Your task to perform on an android device: Open Youtube and go to "Your channel" Image 0: 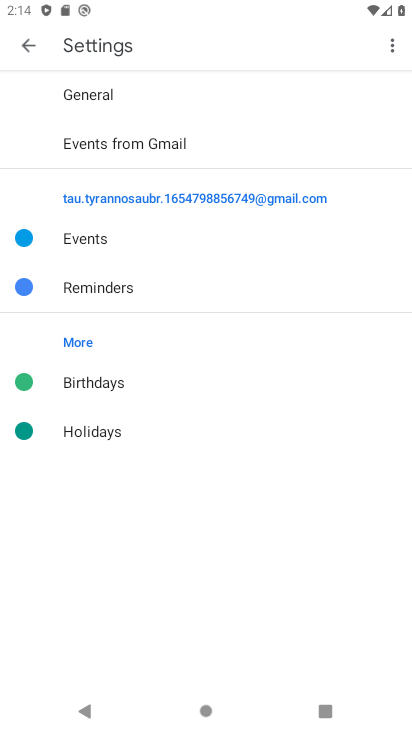
Step 0: click (25, 40)
Your task to perform on an android device: Open Youtube and go to "Your channel" Image 1: 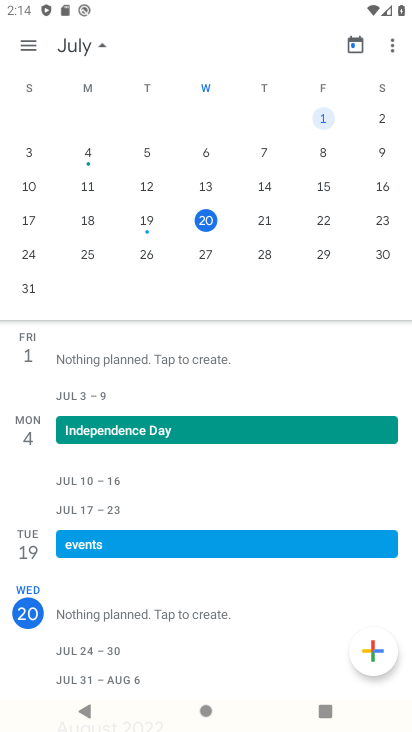
Step 1: press back button
Your task to perform on an android device: Open Youtube and go to "Your channel" Image 2: 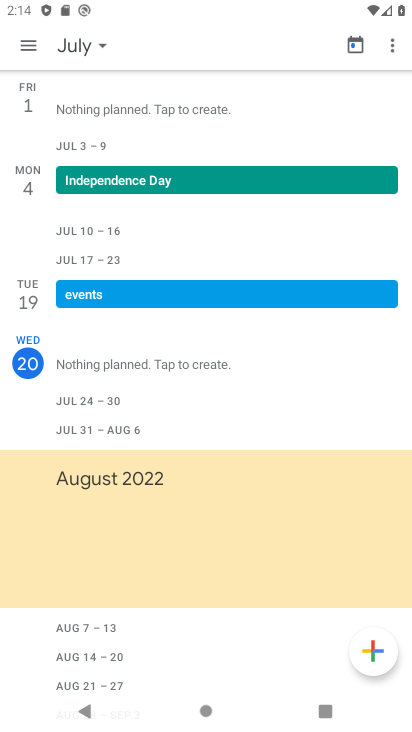
Step 2: drag from (267, 424) to (223, 125)
Your task to perform on an android device: Open Youtube and go to "Your channel" Image 3: 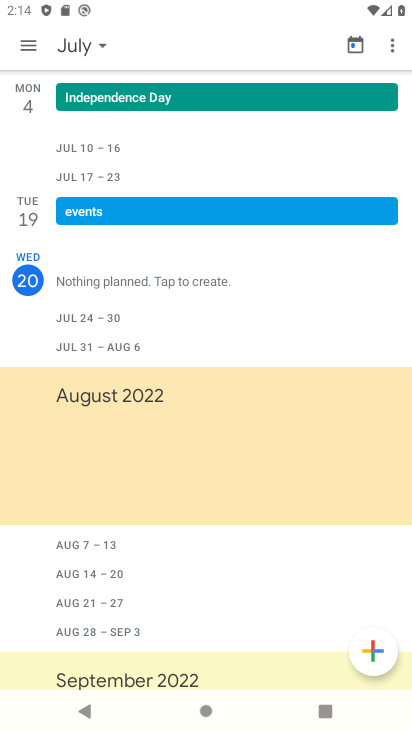
Step 3: press home button
Your task to perform on an android device: Open Youtube and go to "Your channel" Image 4: 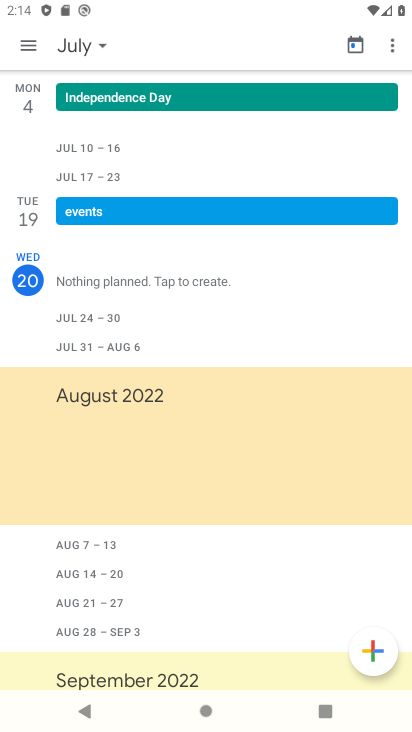
Step 4: press home button
Your task to perform on an android device: Open Youtube and go to "Your channel" Image 5: 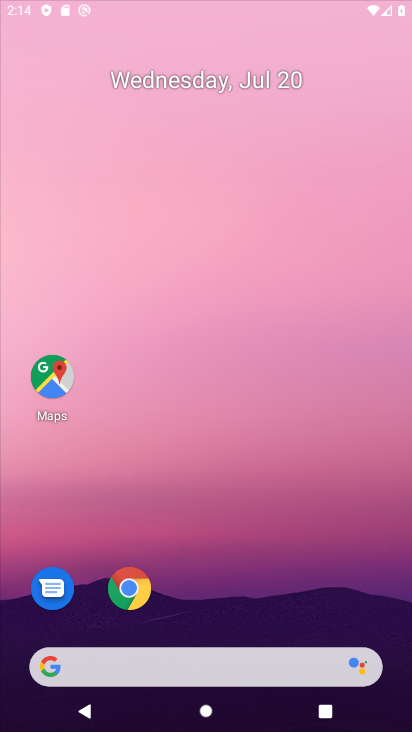
Step 5: press home button
Your task to perform on an android device: Open Youtube and go to "Your channel" Image 6: 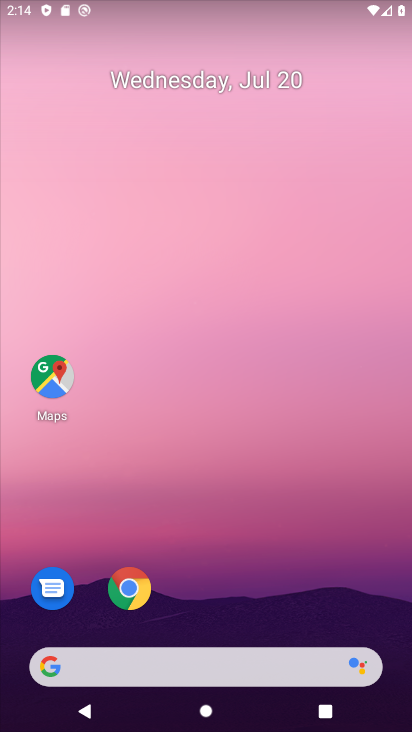
Step 6: drag from (221, 592) to (146, 169)
Your task to perform on an android device: Open Youtube and go to "Your channel" Image 7: 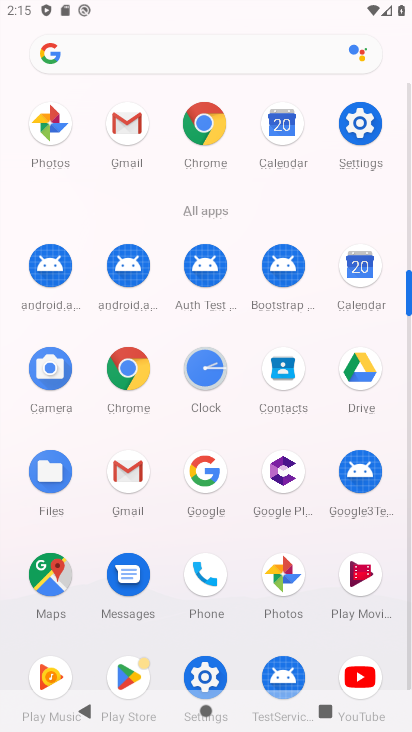
Step 7: click (353, 664)
Your task to perform on an android device: Open Youtube and go to "Your channel" Image 8: 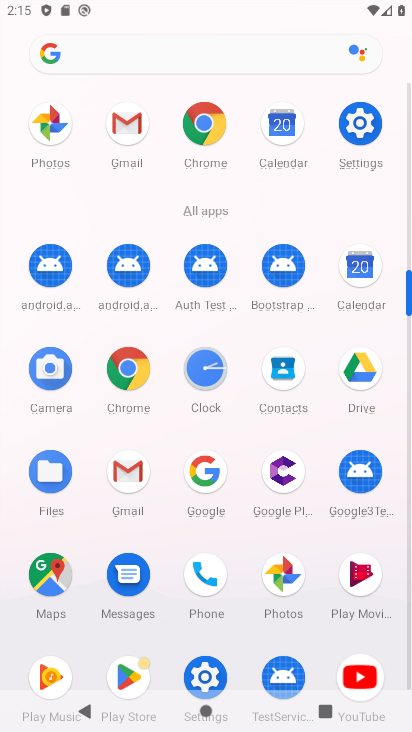
Step 8: click (357, 666)
Your task to perform on an android device: Open Youtube and go to "Your channel" Image 9: 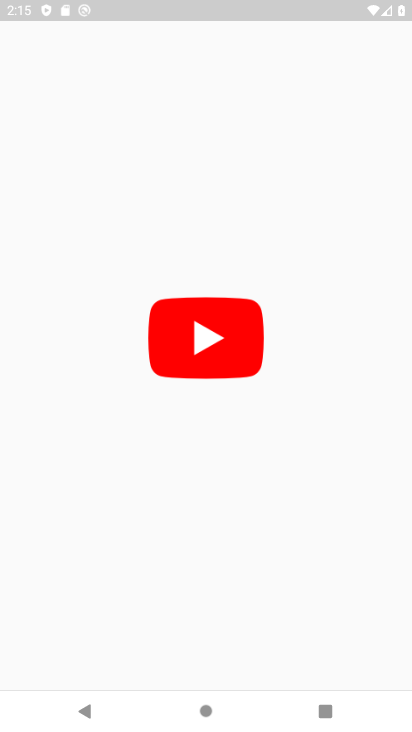
Step 9: click (211, 341)
Your task to perform on an android device: Open Youtube and go to "Your channel" Image 10: 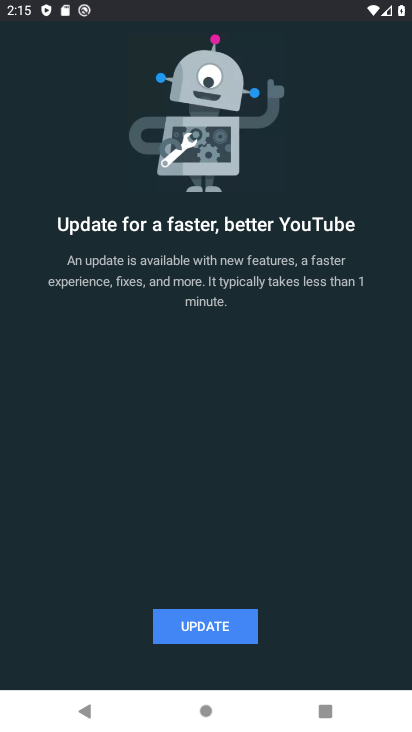
Step 10: click (210, 340)
Your task to perform on an android device: Open Youtube and go to "Your channel" Image 11: 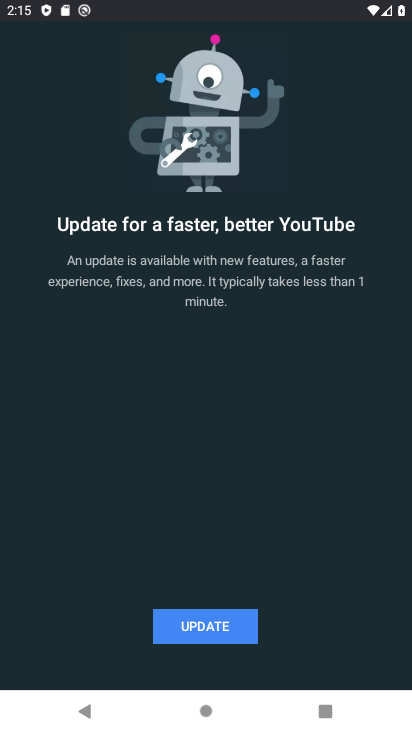
Step 11: click (220, 619)
Your task to perform on an android device: Open Youtube and go to "Your channel" Image 12: 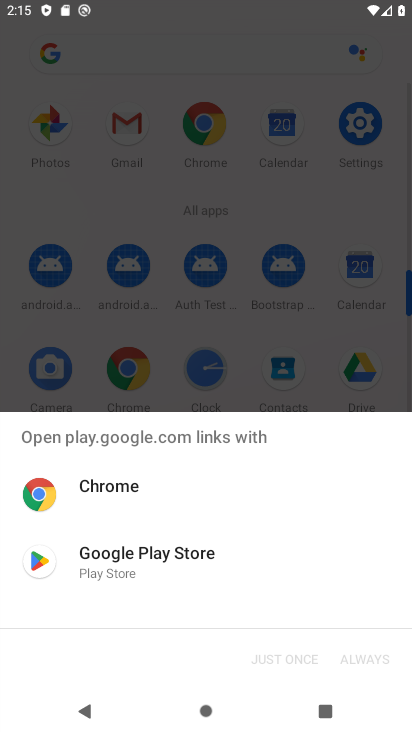
Step 12: click (108, 483)
Your task to perform on an android device: Open Youtube and go to "Your channel" Image 13: 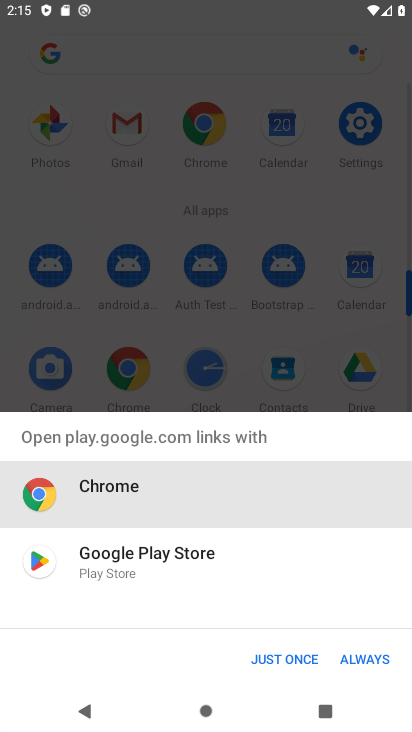
Step 13: click (109, 482)
Your task to perform on an android device: Open Youtube and go to "Your channel" Image 14: 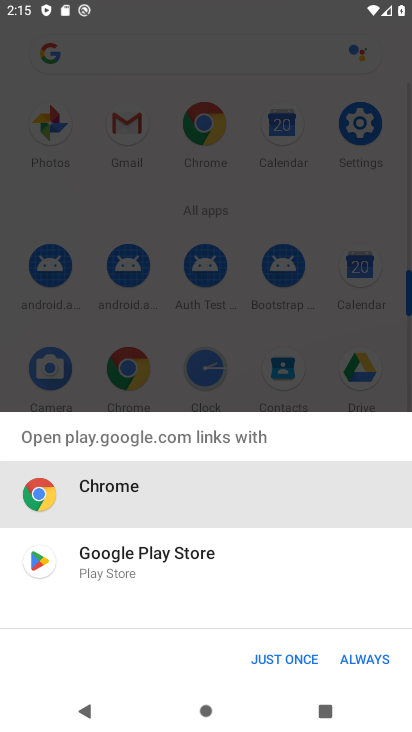
Step 14: click (109, 482)
Your task to perform on an android device: Open Youtube and go to "Your channel" Image 15: 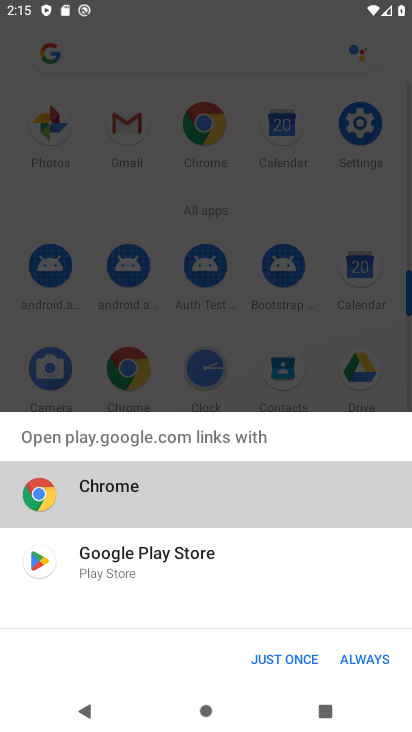
Step 15: click (116, 478)
Your task to perform on an android device: Open Youtube and go to "Your channel" Image 16: 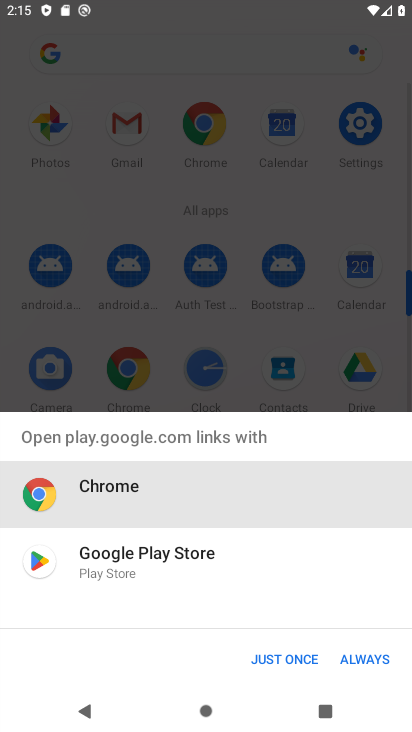
Step 16: click (117, 479)
Your task to perform on an android device: Open Youtube and go to "Your channel" Image 17: 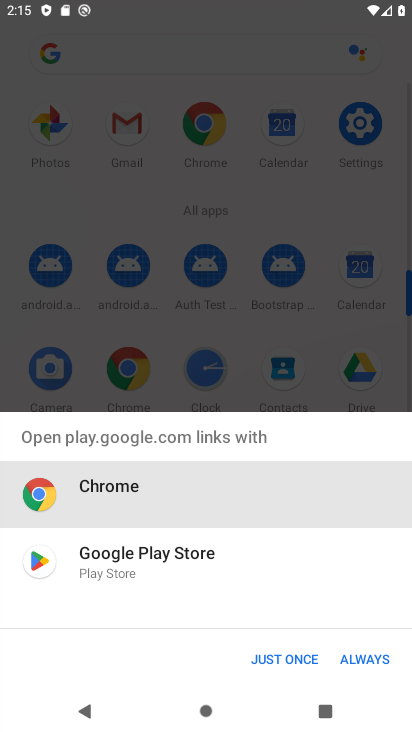
Step 17: click (118, 480)
Your task to perform on an android device: Open Youtube and go to "Your channel" Image 18: 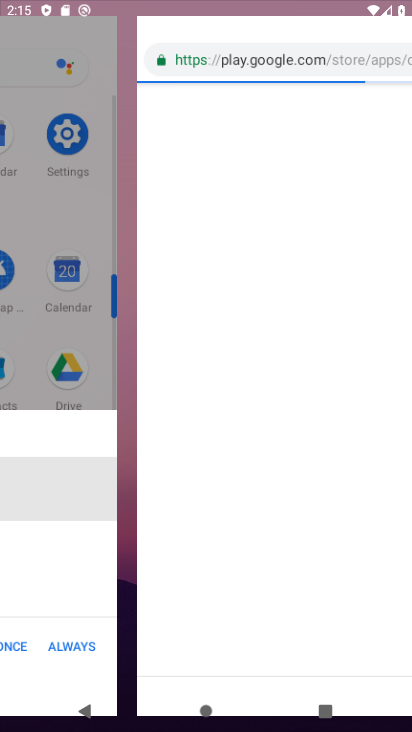
Step 18: click (118, 480)
Your task to perform on an android device: Open Youtube and go to "Your channel" Image 19: 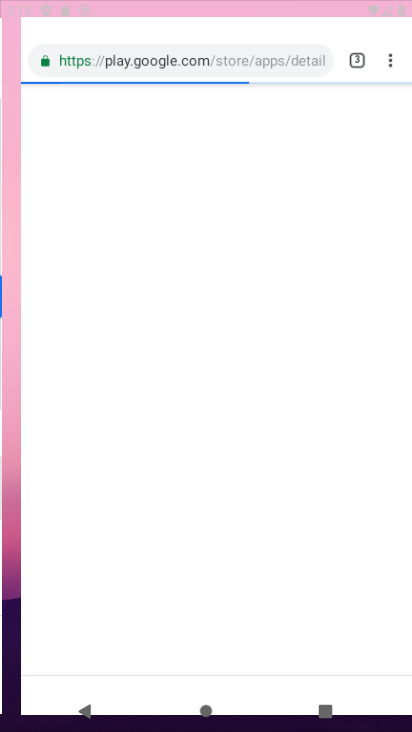
Step 19: click (118, 480)
Your task to perform on an android device: Open Youtube and go to "Your channel" Image 20: 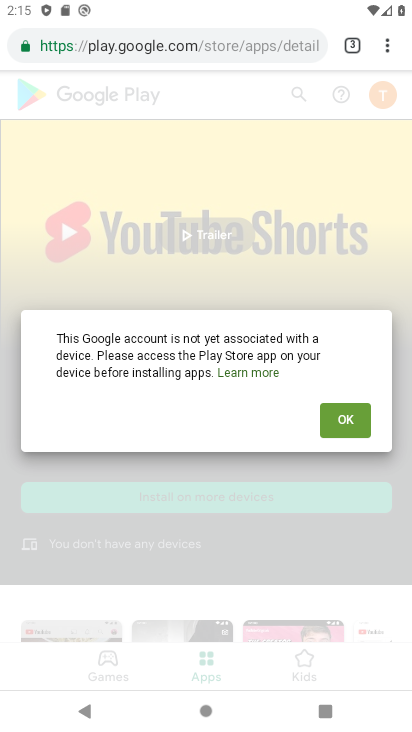
Step 20: click (179, 195)
Your task to perform on an android device: Open Youtube and go to "Your channel" Image 21: 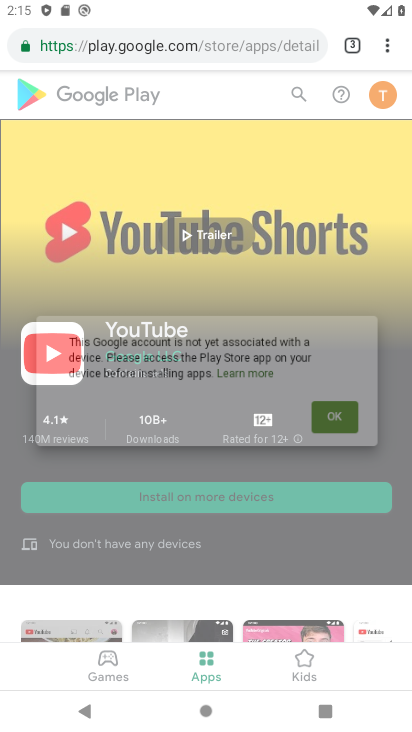
Step 21: click (341, 422)
Your task to perform on an android device: Open Youtube and go to "Your channel" Image 22: 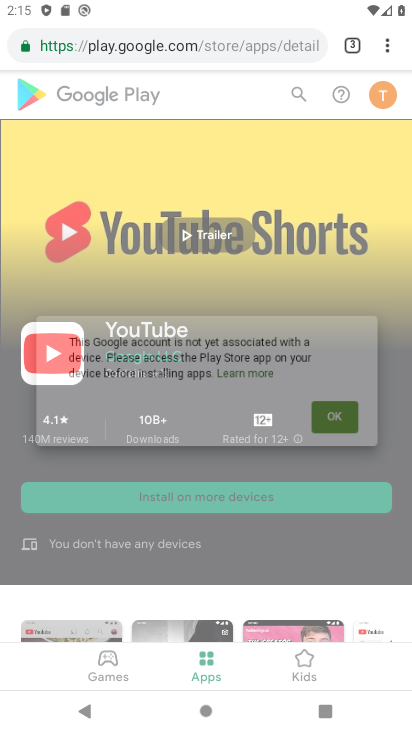
Step 22: click (344, 417)
Your task to perform on an android device: Open Youtube and go to "Your channel" Image 23: 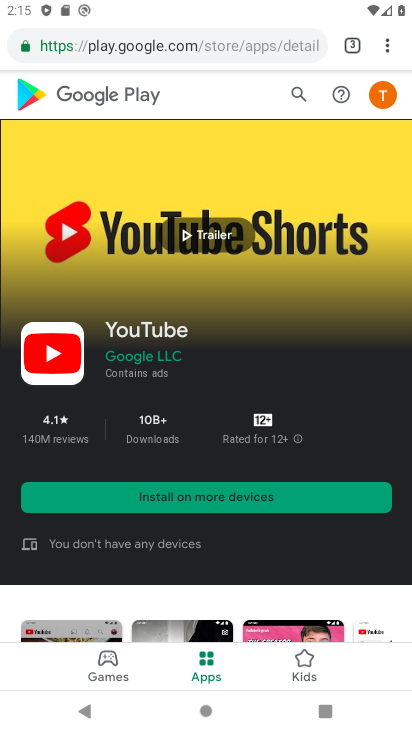
Step 23: task complete